Your task to perform on an android device: turn off airplane mode Image 0: 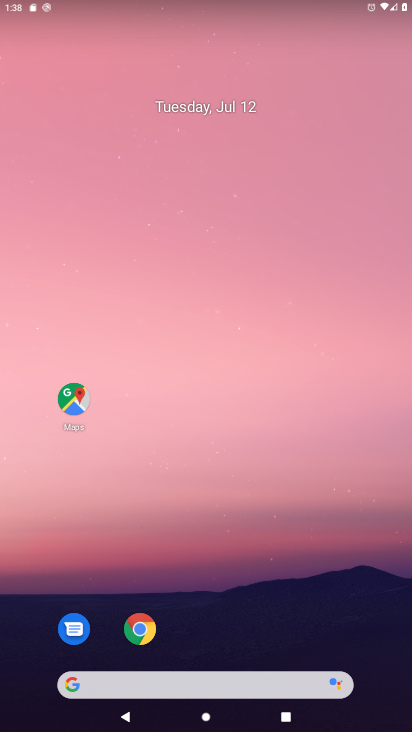
Step 0: drag from (305, 8) to (321, 526)
Your task to perform on an android device: turn off airplane mode Image 1: 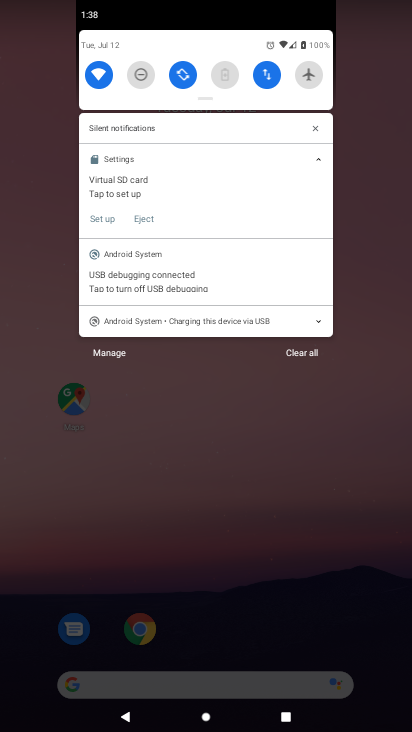
Step 1: click (315, 71)
Your task to perform on an android device: turn off airplane mode Image 2: 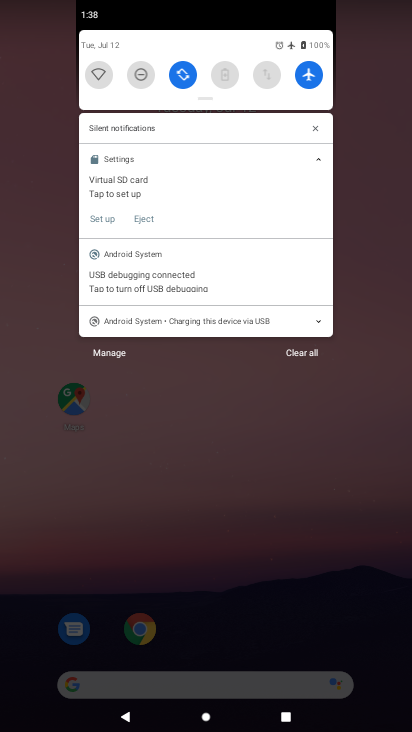
Step 2: task complete